Your task to perform on an android device: What's on my calendar tomorrow? Image 0: 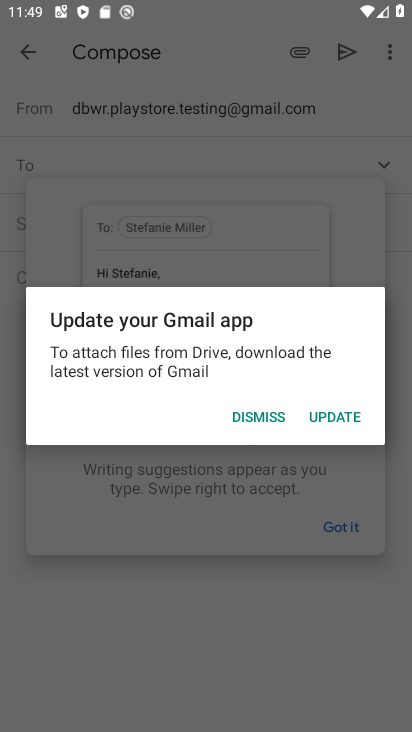
Step 0: press home button
Your task to perform on an android device: What's on my calendar tomorrow? Image 1: 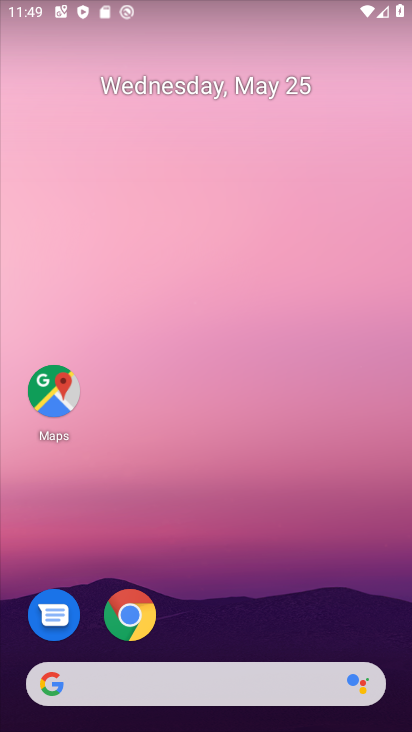
Step 1: drag from (228, 637) to (182, 166)
Your task to perform on an android device: What's on my calendar tomorrow? Image 2: 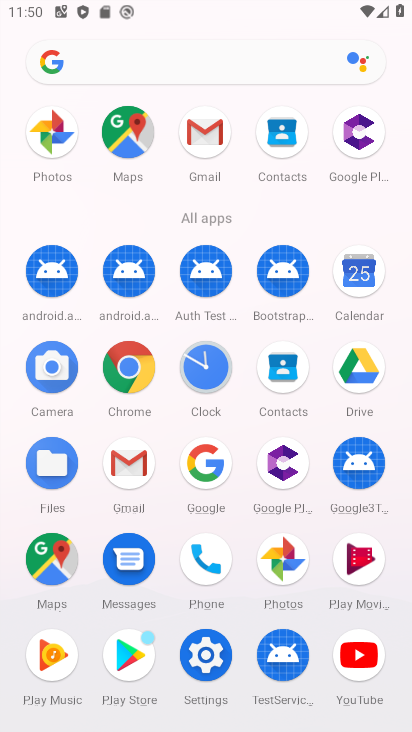
Step 2: click (362, 290)
Your task to perform on an android device: What's on my calendar tomorrow? Image 3: 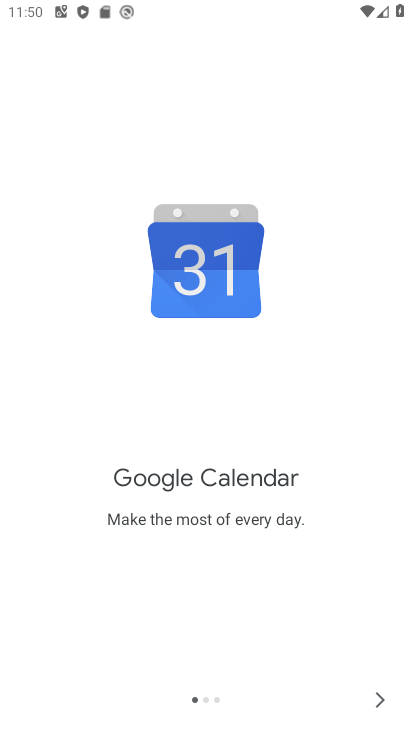
Step 3: click (384, 699)
Your task to perform on an android device: What's on my calendar tomorrow? Image 4: 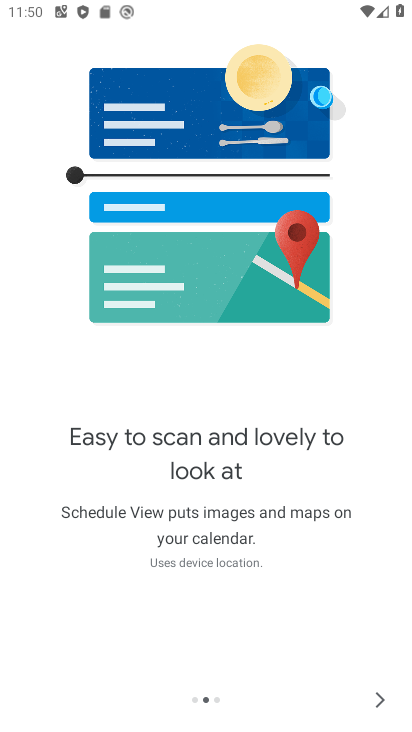
Step 4: click (384, 699)
Your task to perform on an android device: What's on my calendar tomorrow? Image 5: 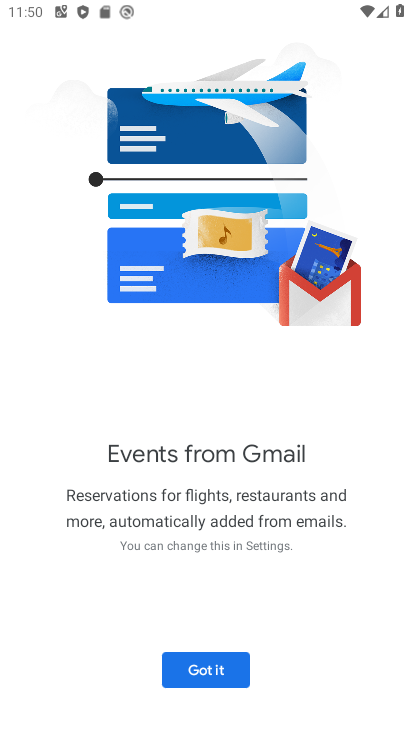
Step 5: click (208, 678)
Your task to perform on an android device: What's on my calendar tomorrow? Image 6: 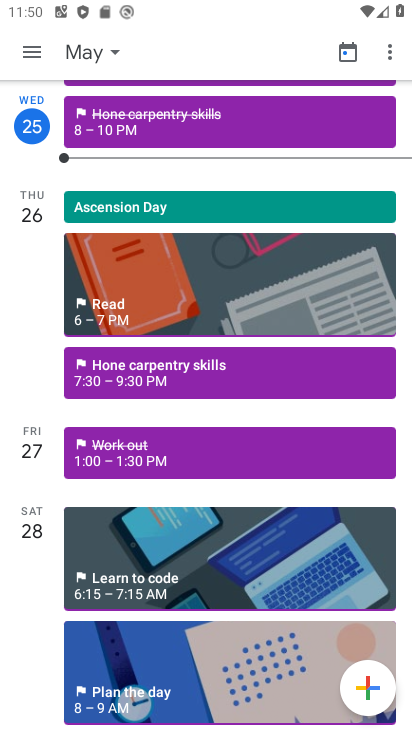
Step 6: task complete